Your task to perform on an android device: Go to Google maps Image 0: 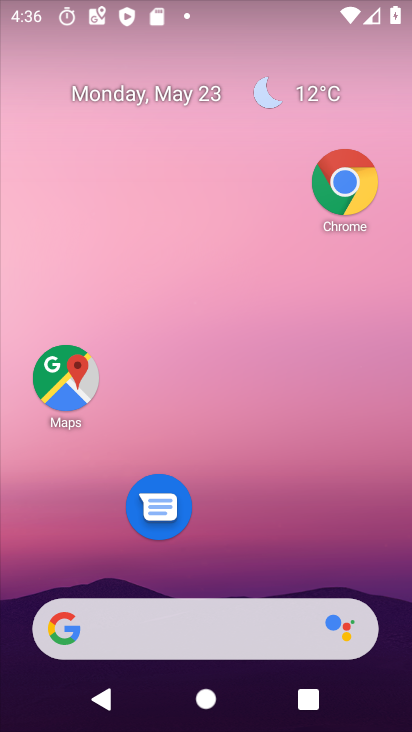
Step 0: click (77, 373)
Your task to perform on an android device: Go to Google maps Image 1: 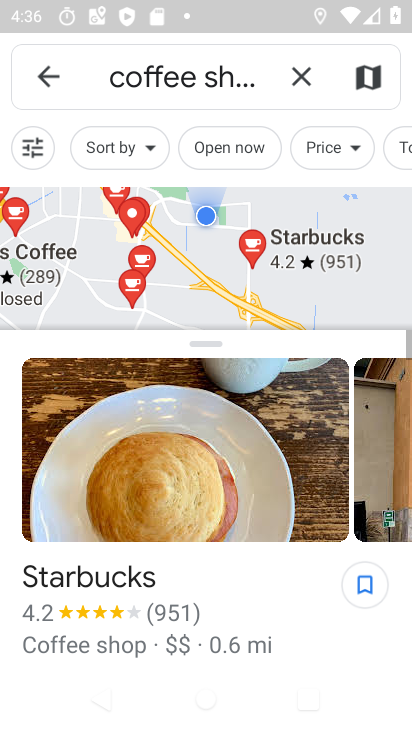
Step 1: task complete